Your task to perform on an android device: How do I get to the nearest Home Depot? Image 0: 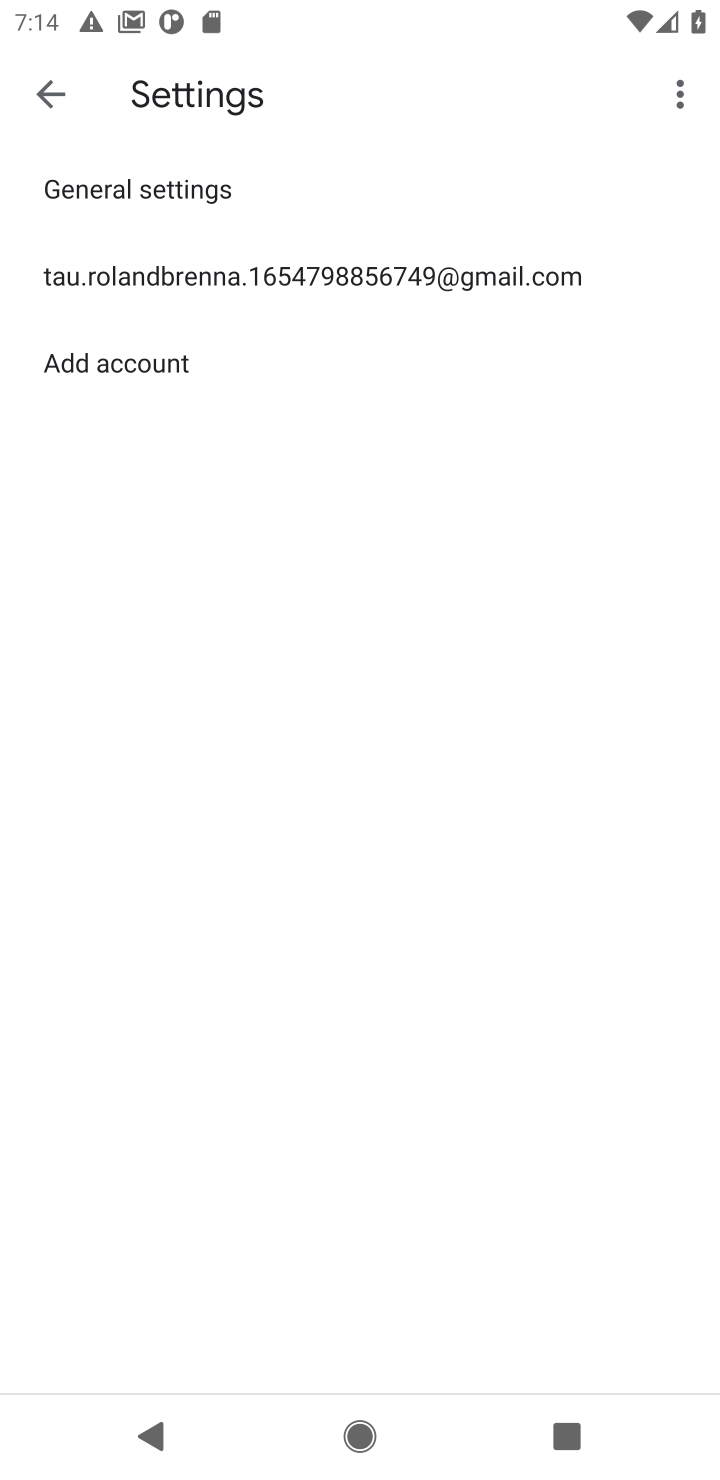
Step 0: press home button
Your task to perform on an android device: How do I get to the nearest Home Depot? Image 1: 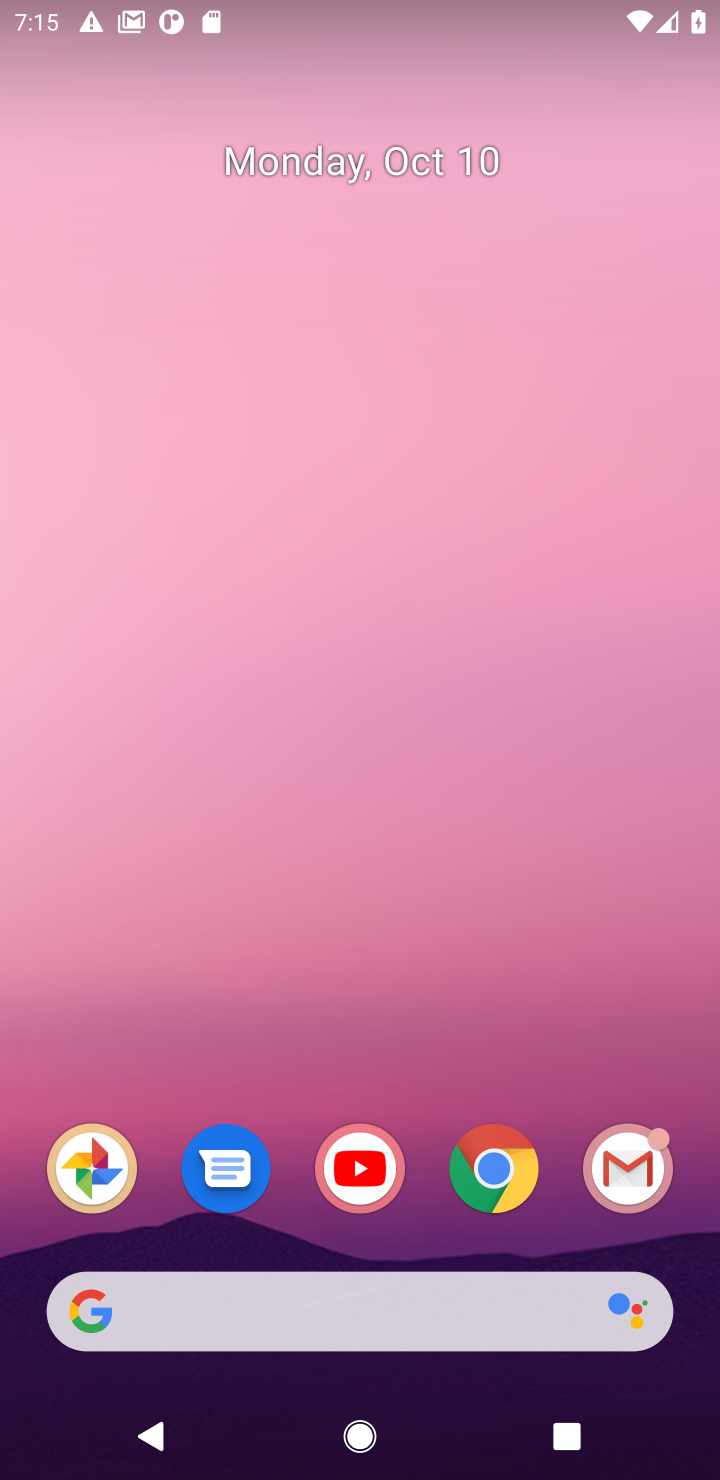
Step 1: click (499, 1172)
Your task to perform on an android device: How do I get to the nearest Home Depot? Image 2: 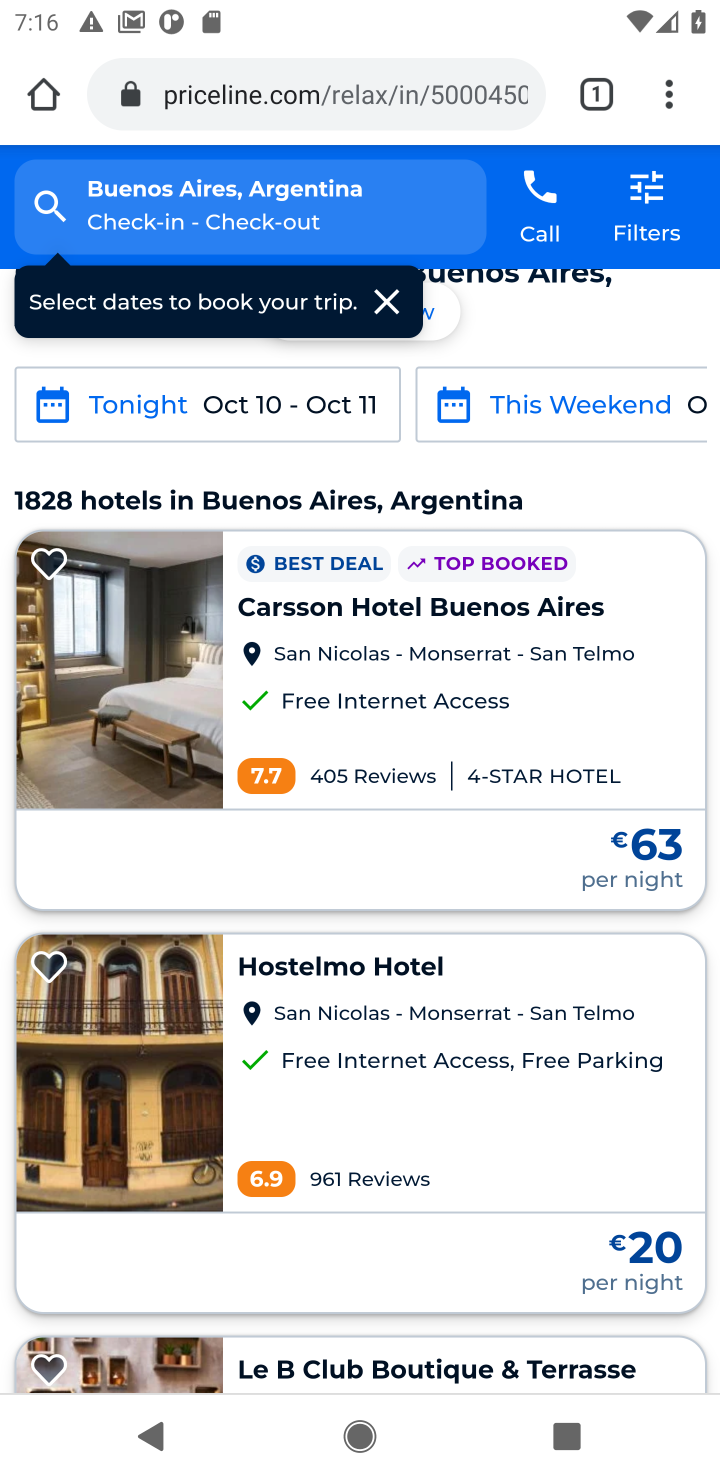
Step 2: click (271, 94)
Your task to perform on an android device: How do I get to the nearest Home Depot? Image 3: 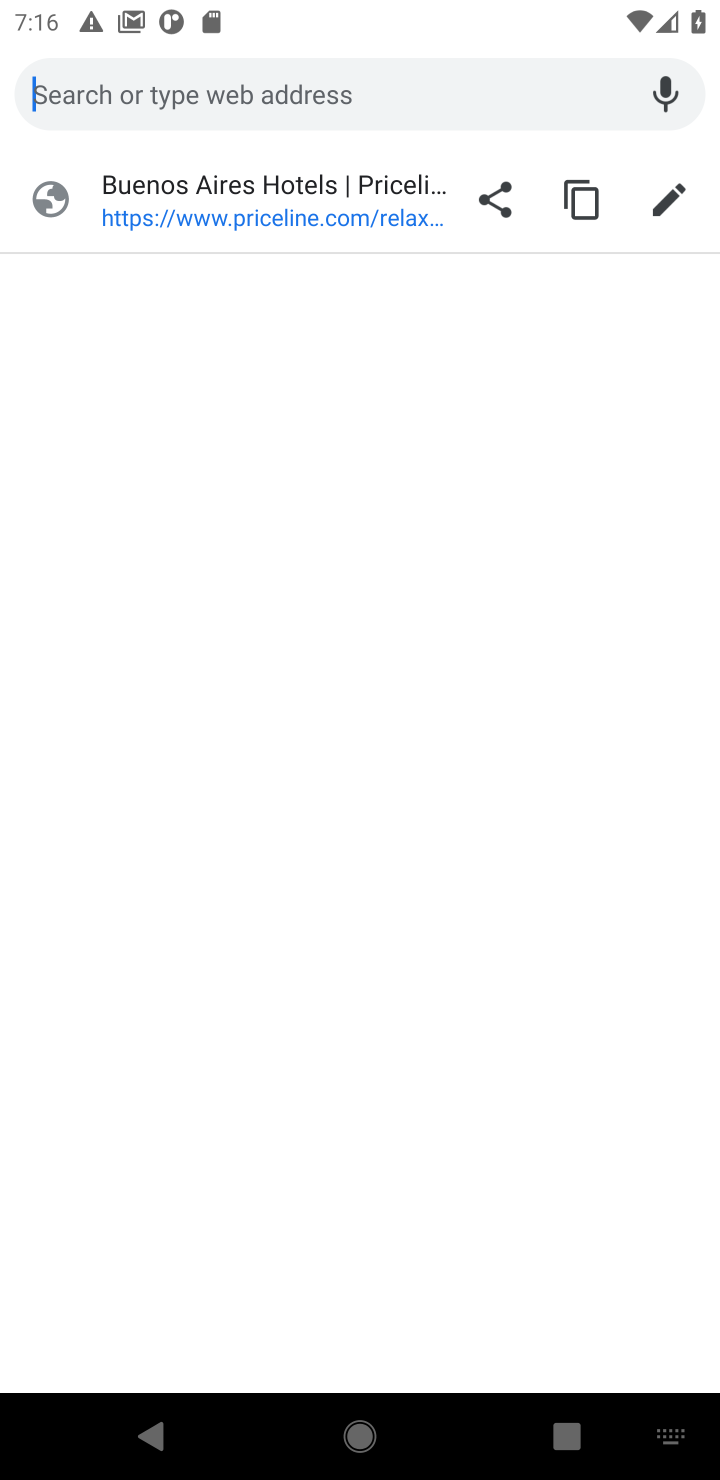
Step 3: type "nearest home depot"
Your task to perform on an android device: How do I get to the nearest Home Depot? Image 4: 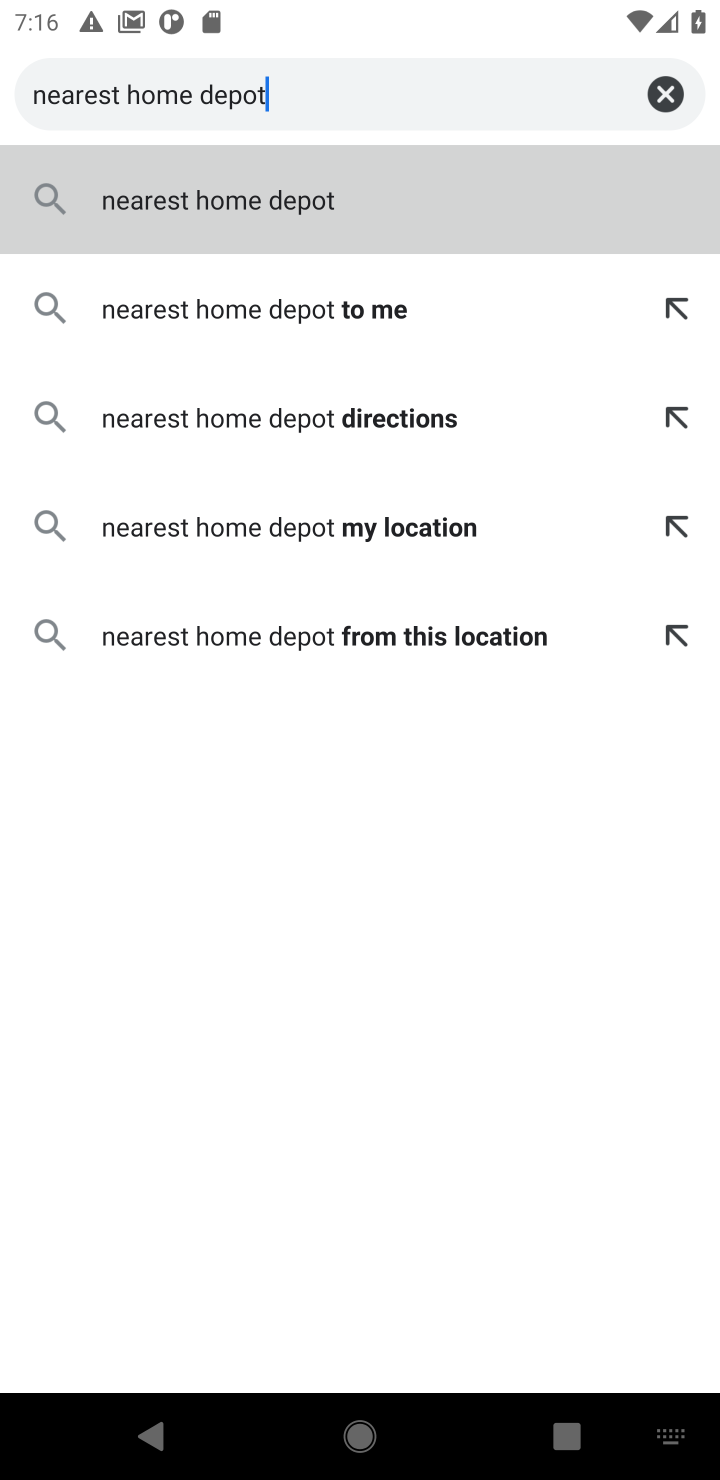
Step 4: click (207, 313)
Your task to perform on an android device: How do I get to the nearest Home Depot? Image 5: 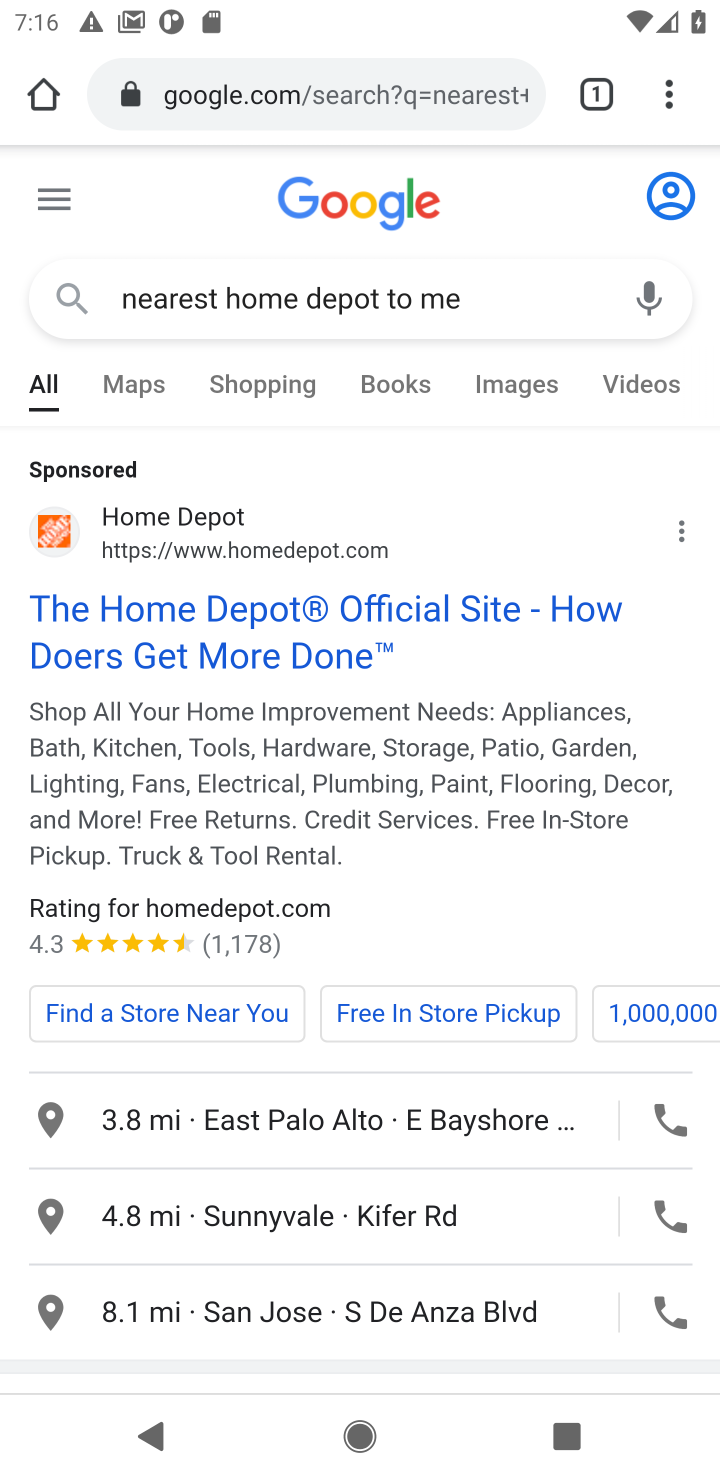
Step 5: task complete